Your task to perform on an android device: What's on my calendar today? Image 0: 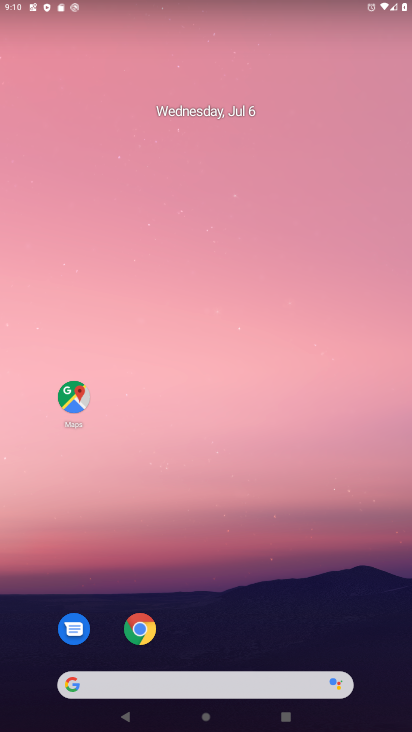
Step 0: drag from (27, 660) to (290, 61)
Your task to perform on an android device: What's on my calendar today? Image 1: 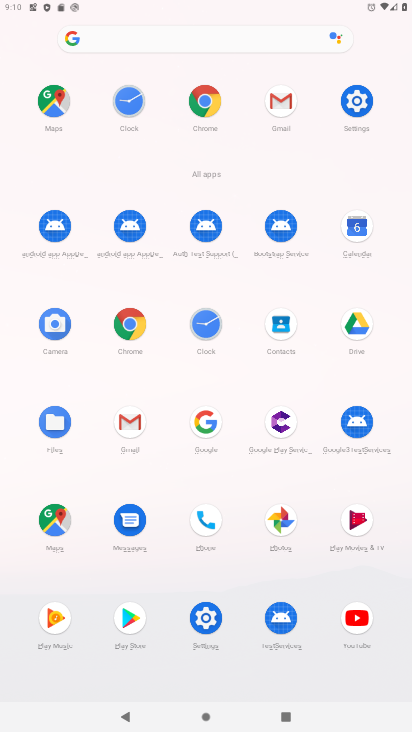
Step 1: click (371, 221)
Your task to perform on an android device: What's on my calendar today? Image 2: 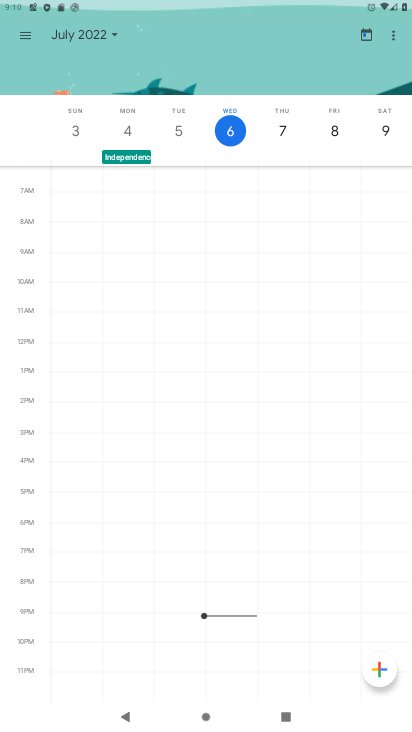
Step 2: click (105, 34)
Your task to perform on an android device: What's on my calendar today? Image 3: 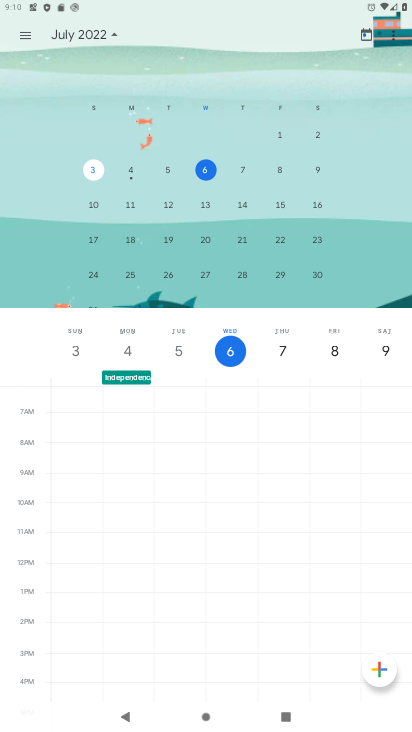
Step 3: click (206, 165)
Your task to perform on an android device: What's on my calendar today? Image 4: 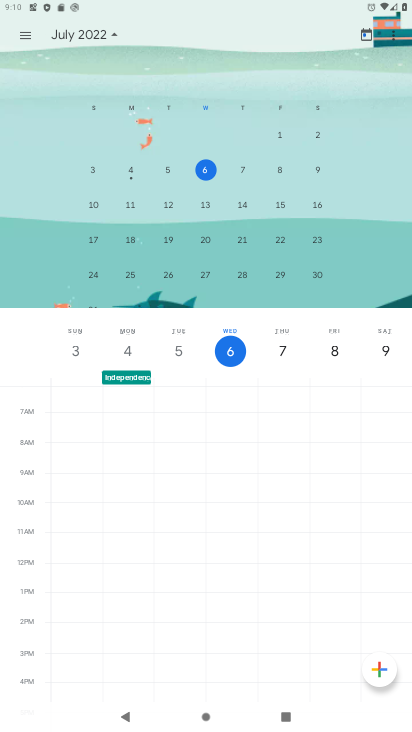
Step 4: click (206, 165)
Your task to perform on an android device: What's on my calendar today? Image 5: 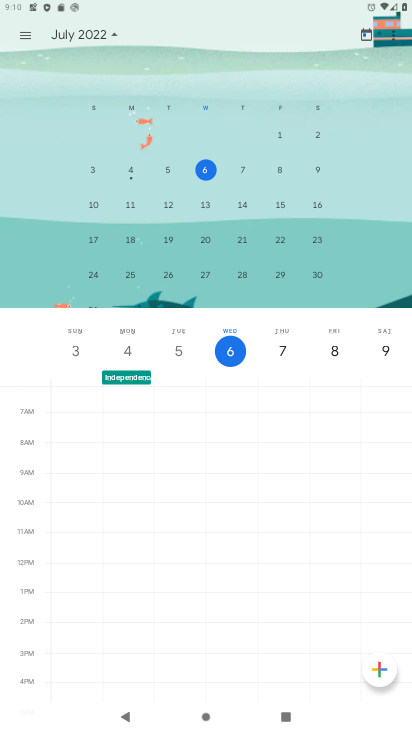
Step 5: click (206, 165)
Your task to perform on an android device: What's on my calendar today? Image 6: 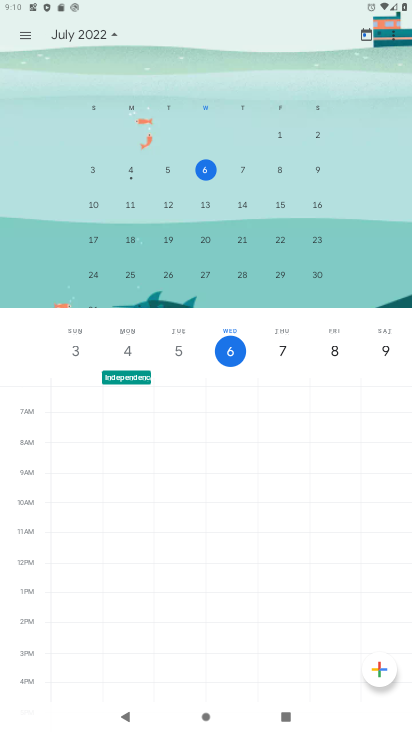
Step 6: click (206, 165)
Your task to perform on an android device: What's on my calendar today? Image 7: 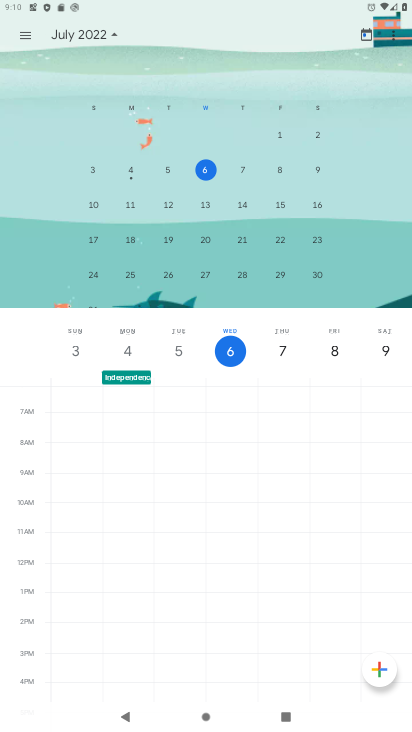
Step 7: click (206, 165)
Your task to perform on an android device: What's on my calendar today? Image 8: 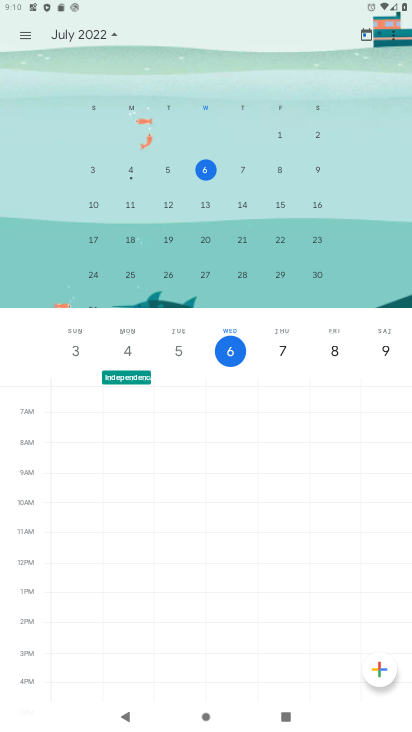
Step 8: task complete